Your task to perform on an android device: turn off location Image 0: 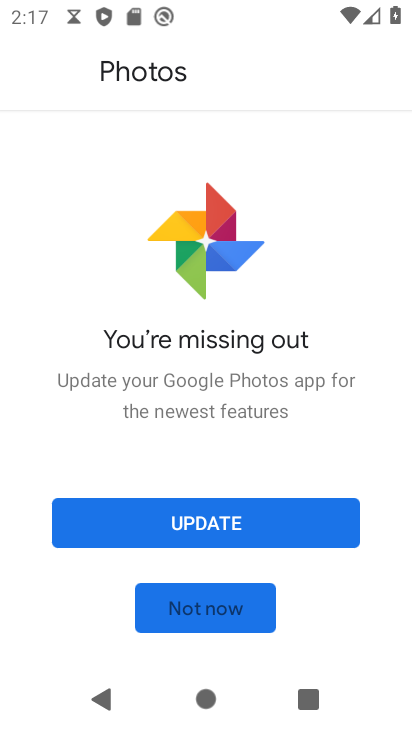
Step 0: press home button
Your task to perform on an android device: turn off location Image 1: 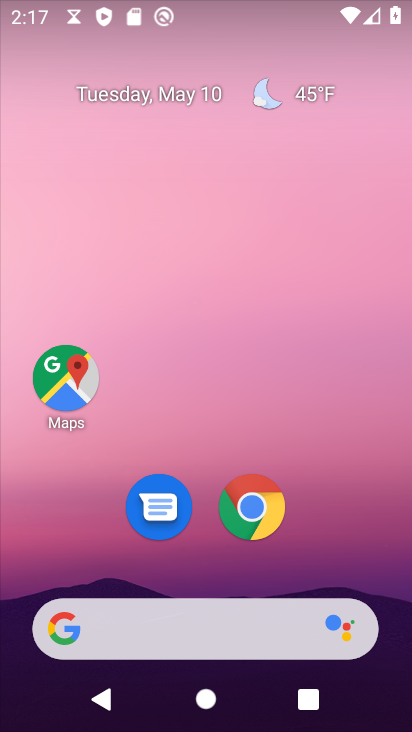
Step 1: drag from (330, 497) to (210, 207)
Your task to perform on an android device: turn off location Image 2: 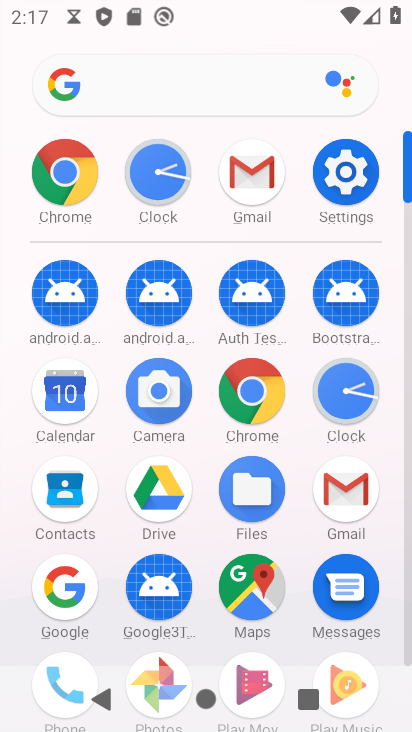
Step 2: click (346, 161)
Your task to perform on an android device: turn off location Image 3: 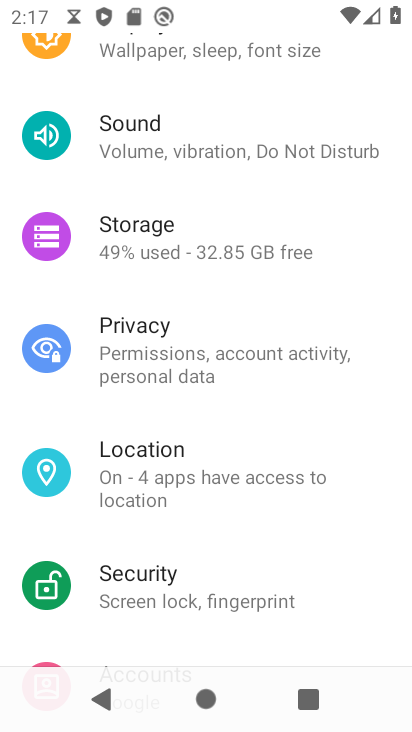
Step 3: click (140, 481)
Your task to perform on an android device: turn off location Image 4: 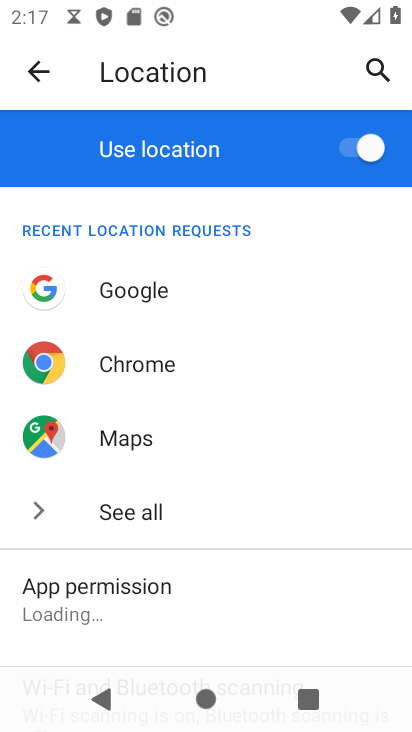
Step 4: click (370, 145)
Your task to perform on an android device: turn off location Image 5: 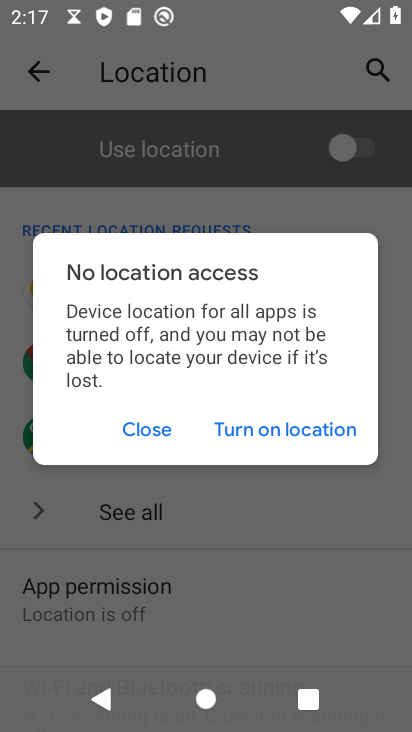
Step 5: task complete